Your task to perform on an android device: What's the weather? Image 0: 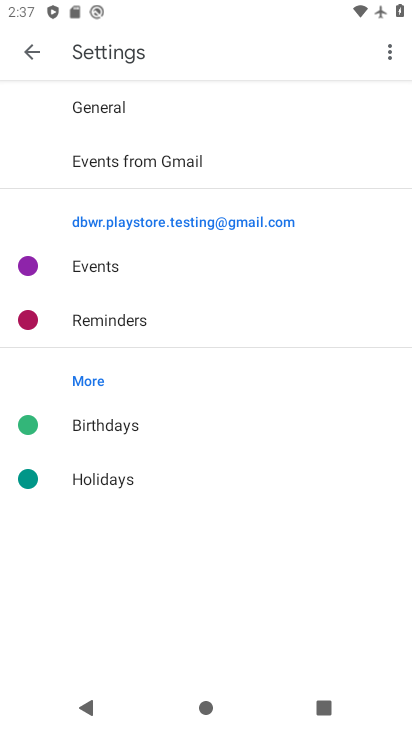
Step 0: drag from (274, 720) to (200, 213)
Your task to perform on an android device: What's the weather? Image 1: 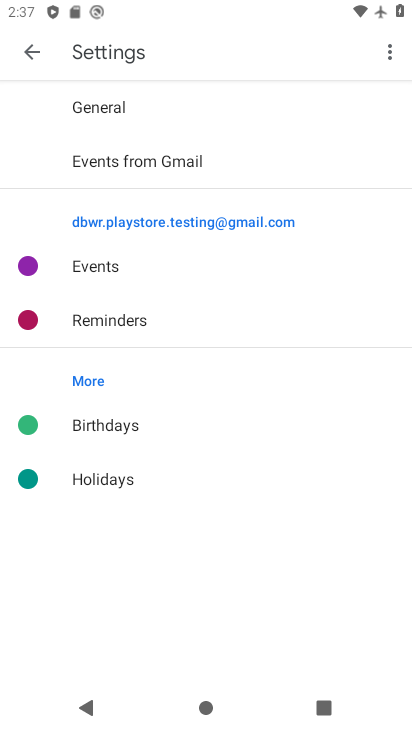
Step 1: press home button
Your task to perform on an android device: What's the weather? Image 2: 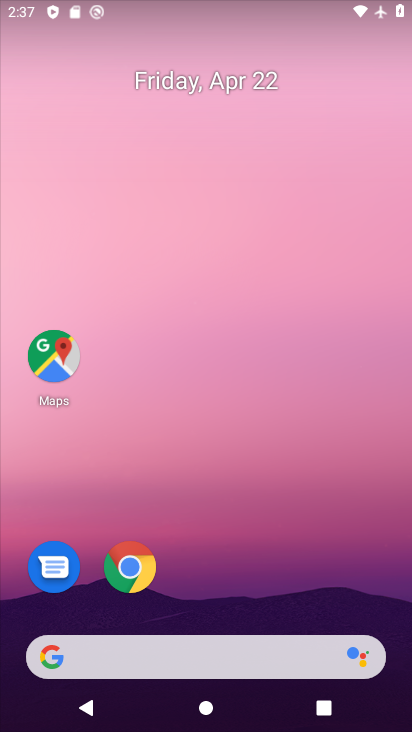
Step 2: drag from (262, 694) to (24, 157)
Your task to perform on an android device: What's the weather? Image 3: 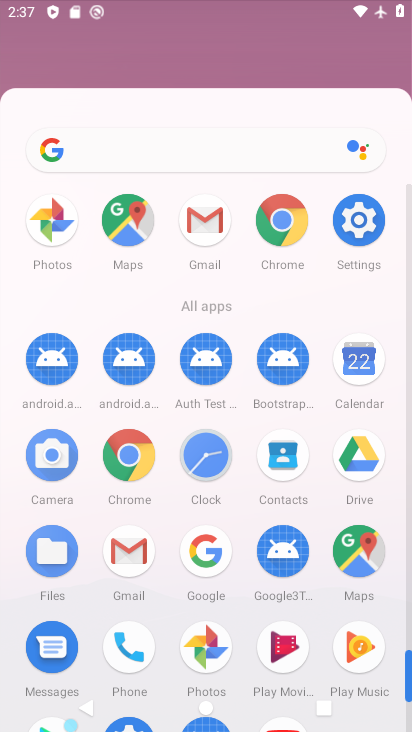
Step 3: click (145, 221)
Your task to perform on an android device: What's the weather? Image 4: 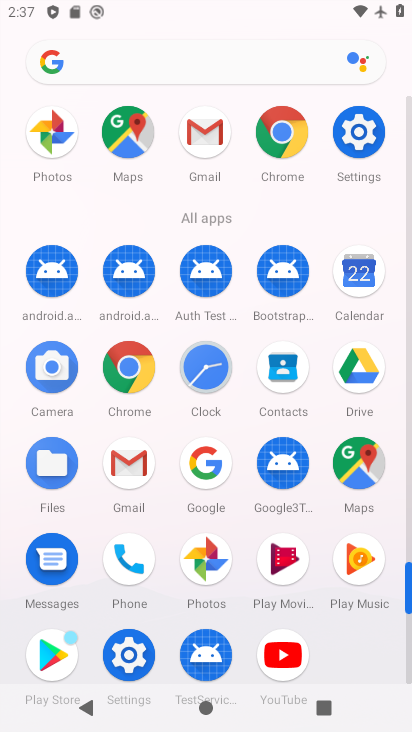
Step 4: press home button
Your task to perform on an android device: What's the weather? Image 5: 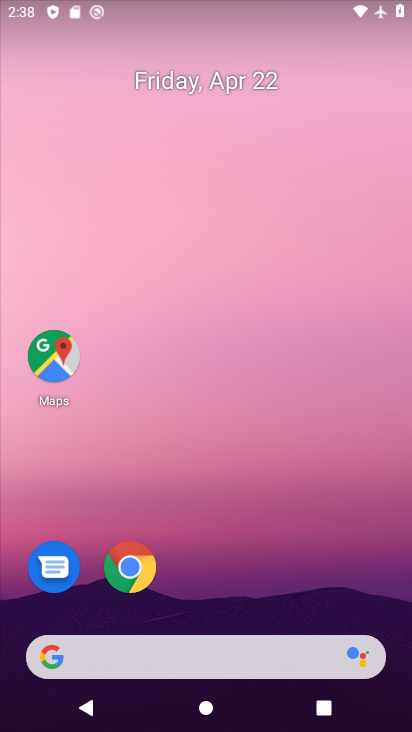
Step 5: drag from (18, 241) to (255, 260)
Your task to perform on an android device: What's the weather? Image 6: 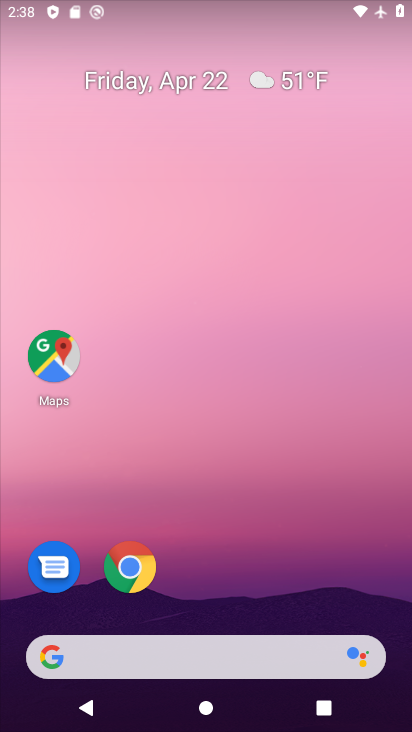
Step 6: drag from (208, 448) to (194, 249)
Your task to perform on an android device: What's the weather? Image 7: 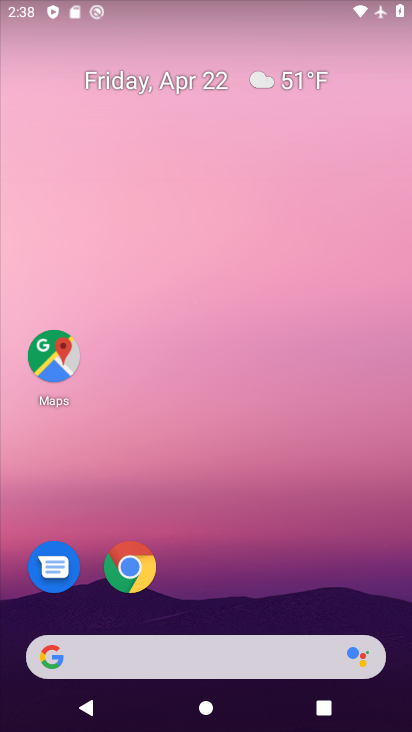
Step 7: drag from (39, 229) to (388, 299)
Your task to perform on an android device: What's the weather? Image 8: 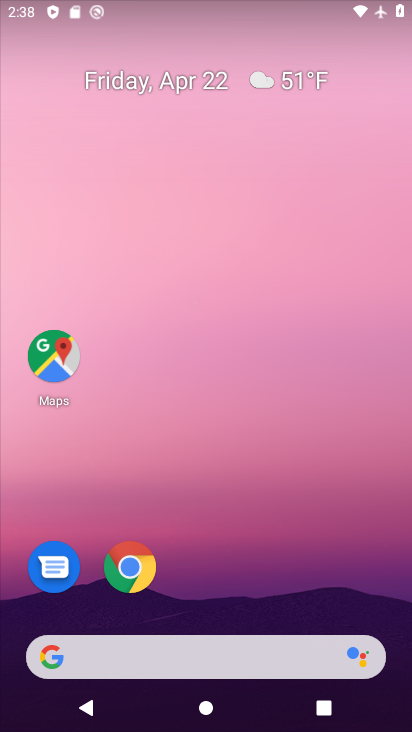
Step 8: drag from (33, 217) to (337, 265)
Your task to perform on an android device: What's the weather? Image 9: 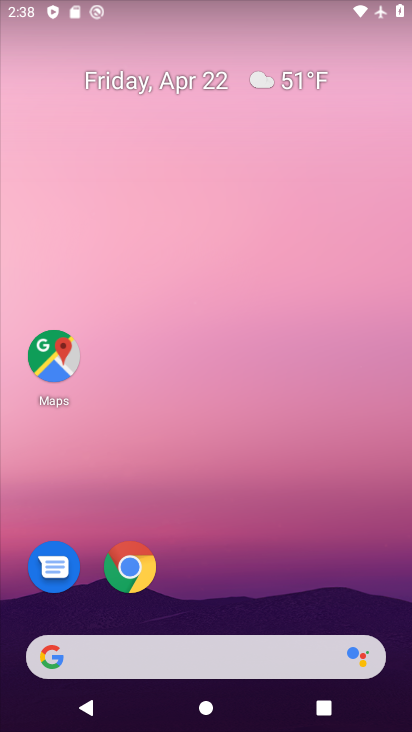
Step 9: drag from (21, 249) to (385, 286)
Your task to perform on an android device: What's the weather? Image 10: 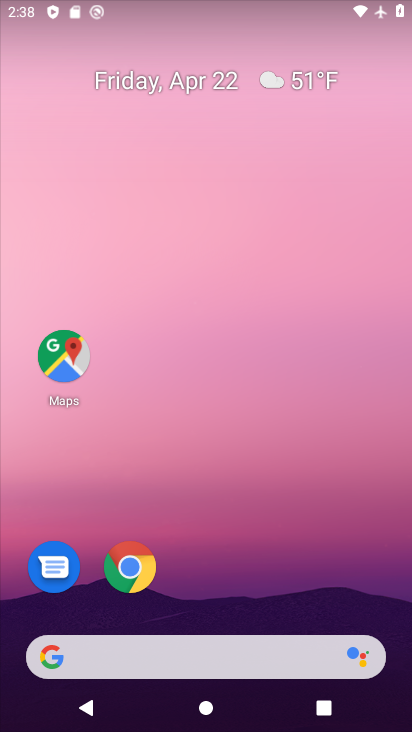
Step 10: click (388, 256)
Your task to perform on an android device: What's the weather? Image 11: 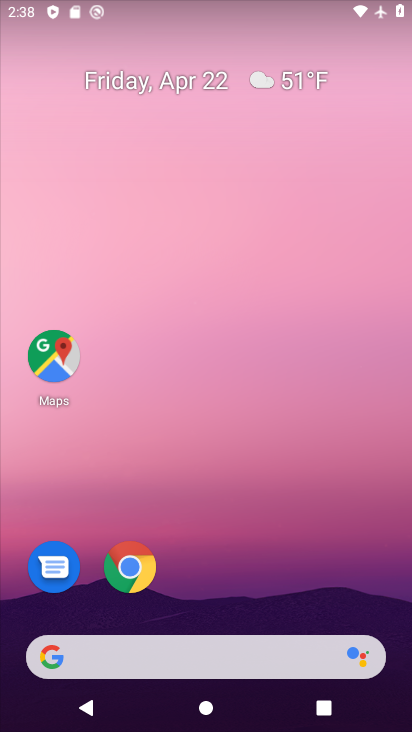
Step 11: click (261, 76)
Your task to perform on an android device: What's the weather? Image 12: 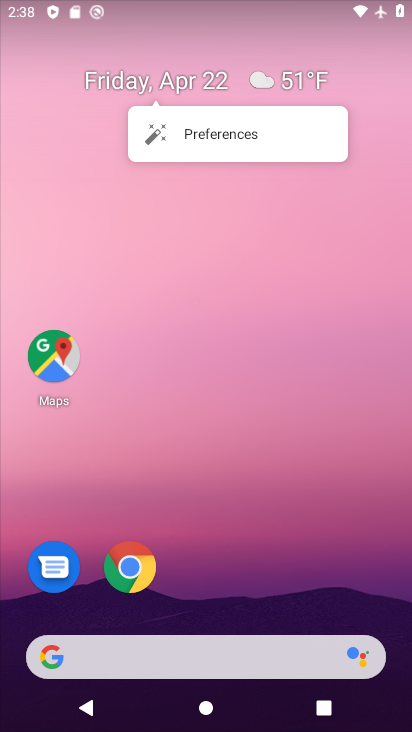
Step 12: drag from (267, 64) to (282, 453)
Your task to perform on an android device: What's the weather? Image 13: 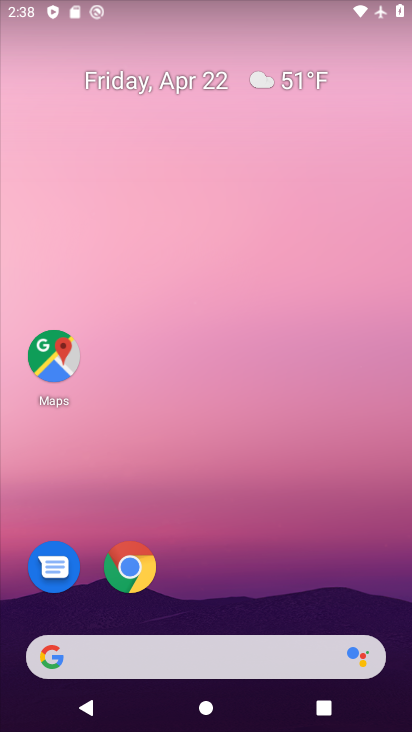
Step 13: click (266, 77)
Your task to perform on an android device: What's the weather? Image 14: 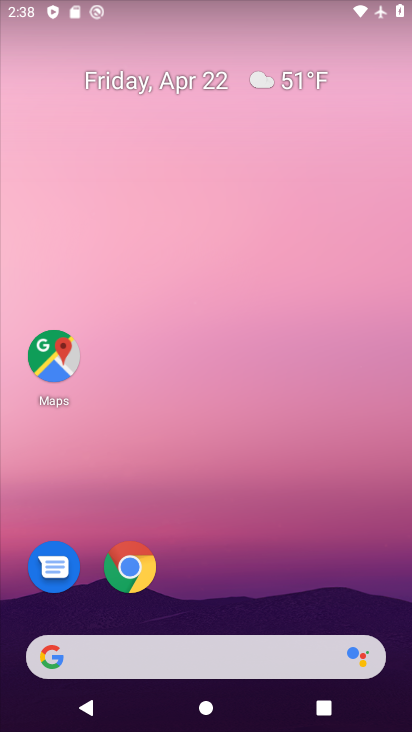
Step 14: click (266, 77)
Your task to perform on an android device: What's the weather? Image 15: 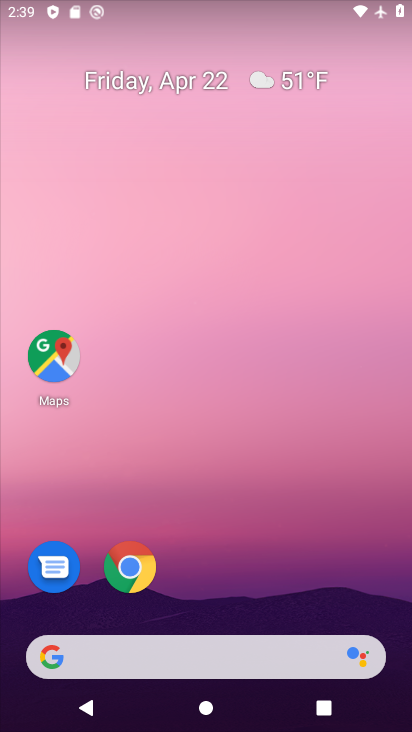
Step 15: click (323, 245)
Your task to perform on an android device: What's the weather? Image 16: 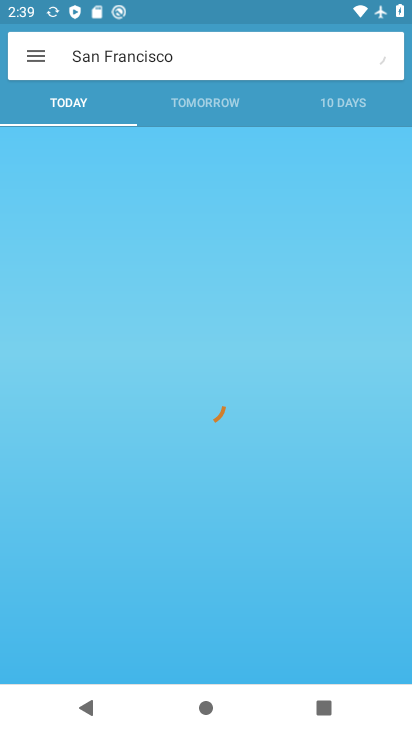
Step 16: drag from (31, 210) to (380, 236)
Your task to perform on an android device: What's the weather? Image 17: 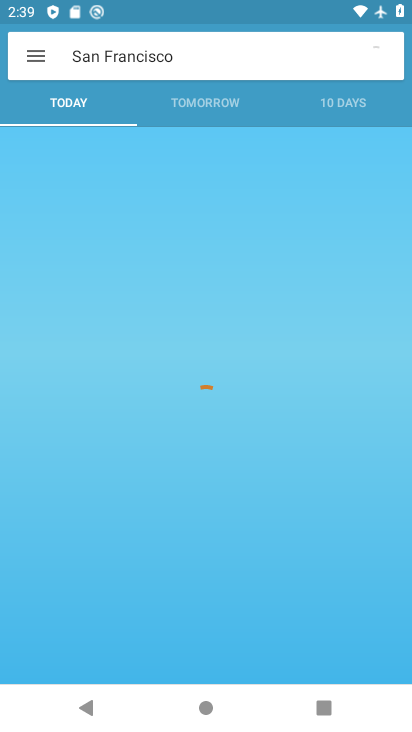
Step 17: click (211, 106)
Your task to perform on an android device: What's the weather? Image 18: 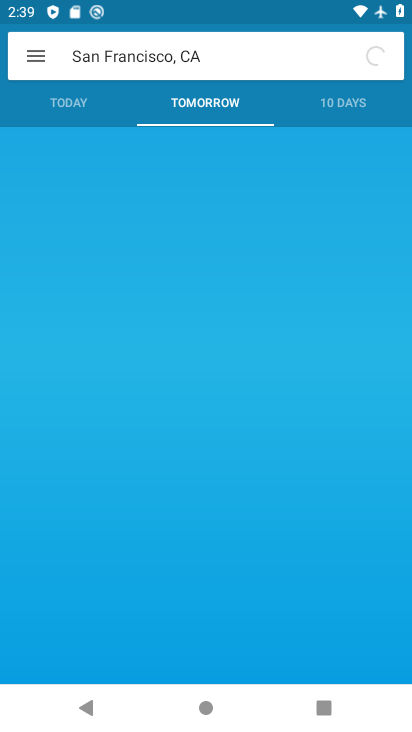
Step 18: drag from (219, 114) to (219, 156)
Your task to perform on an android device: What's the weather? Image 19: 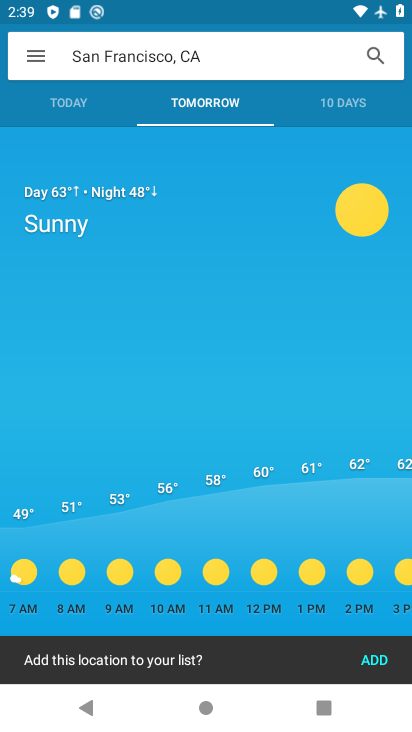
Step 19: click (59, 102)
Your task to perform on an android device: What's the weather? Image 20: 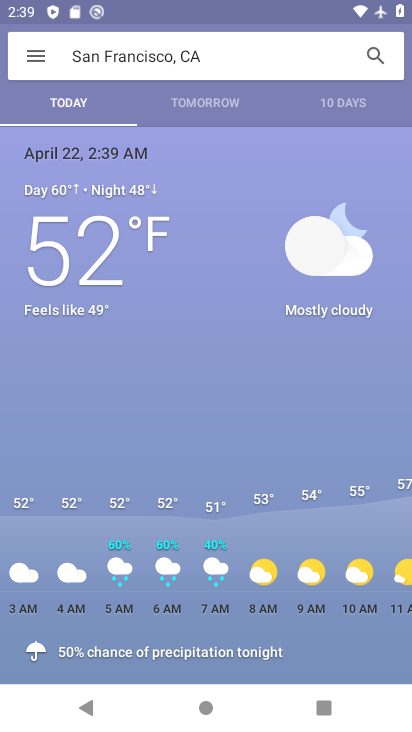
Step 20: task complete